Your task to perform on an android device: turn pop-ups on in chrome Image 0: 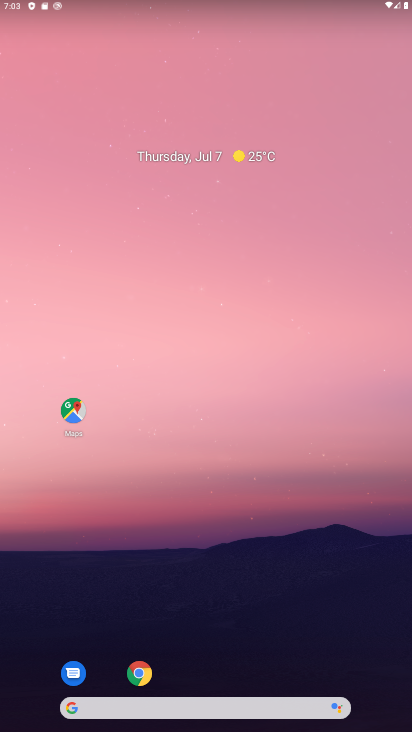
Step 0: click (143, 664)
Your task to perform on an android device: turn pop-ups on in chrome Image 1: 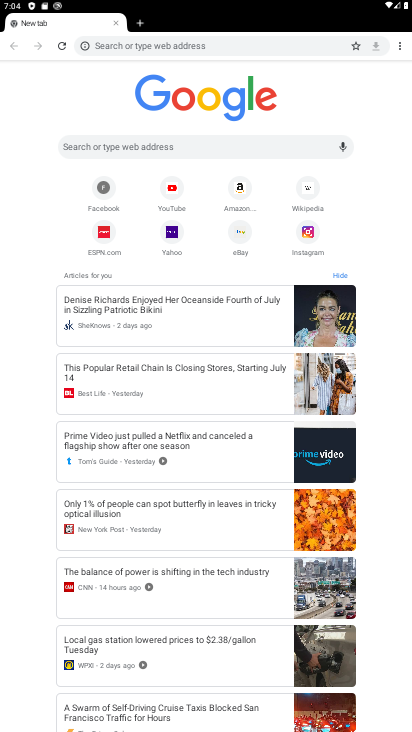
Step 1: click (400, 46)
Your task to perform on an android device: turn pop-ups on in chrome Image 2: 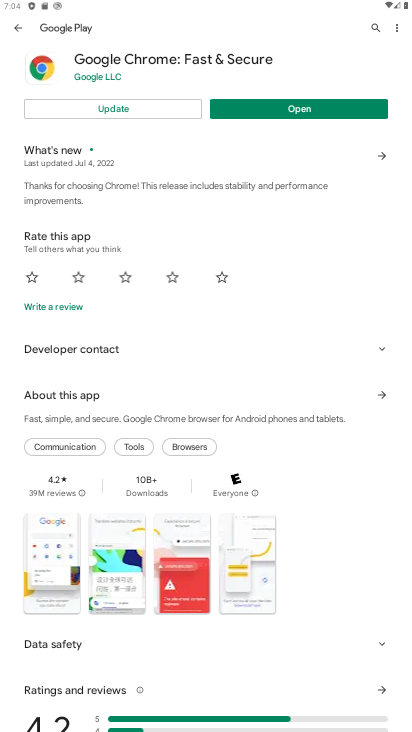
Step 2: press back button
Your task to perform on an android device: turn pop-ups on in chrome Image 3: 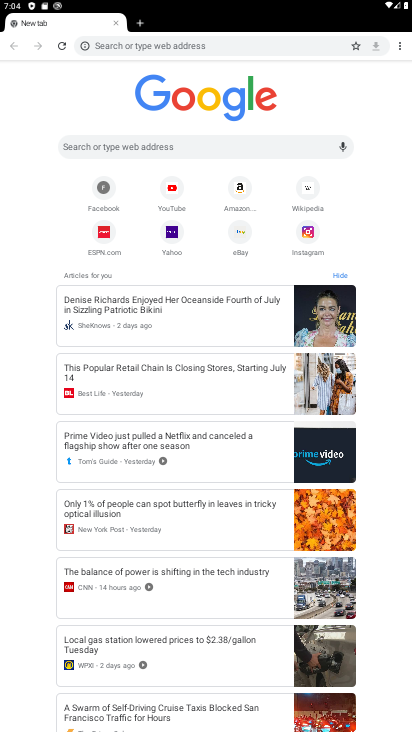
Step 3: click (396, 56)
Your task to perform on an android device: turn pop-ups on in chrome Image 4: 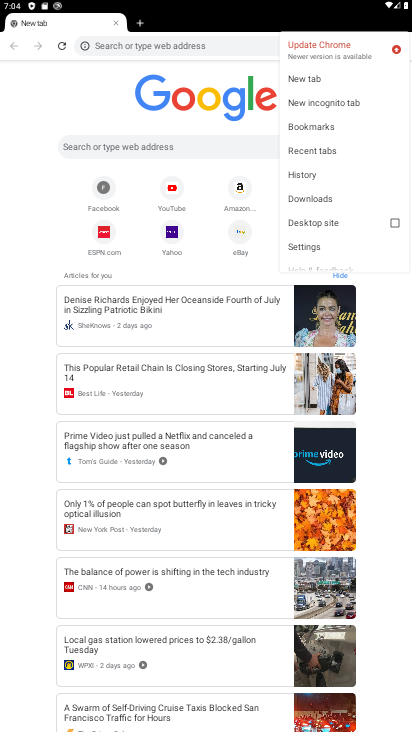
Step 4: click (315, 250)
Your task to perform on an android device: turn pop-ups on in chrome Image 5: 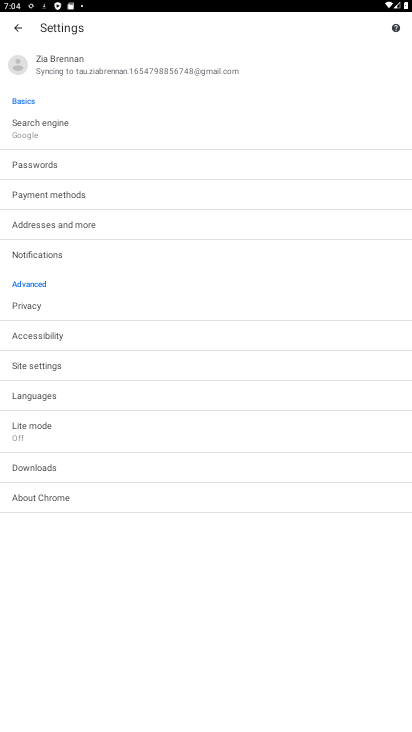
Step 5: click (94, 363)
Your task to perform on an android device: turn pop-ups on in chrome Image 6: 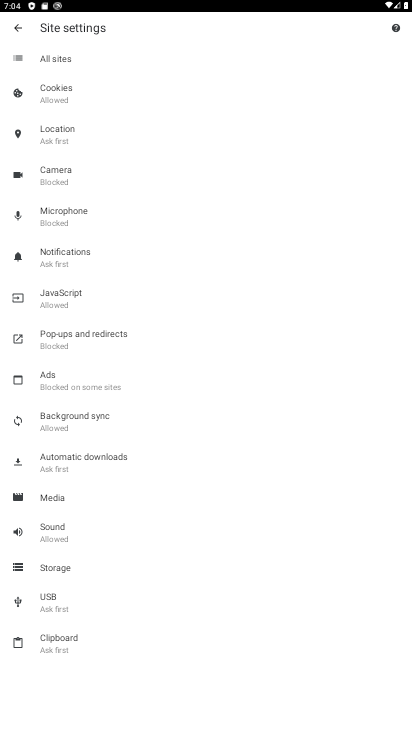
Step 6: click (105, 337)
Your task to perform on an android device: turn pop-ups on in chrome Image 7: 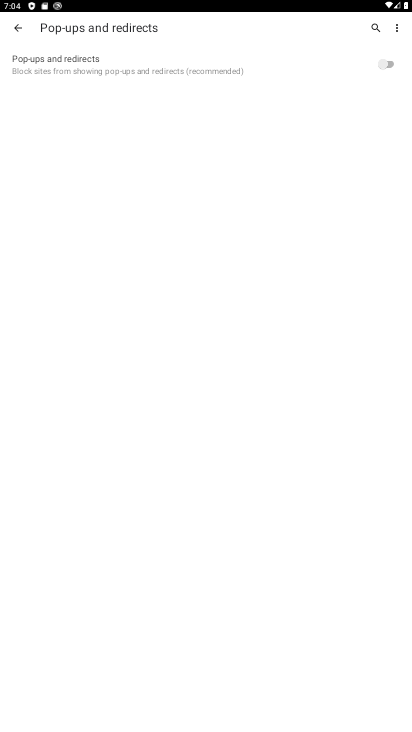
Step 7: click (385, 45)
Your task to perform on an android device: turn pop-ups on in chrome Image 8: 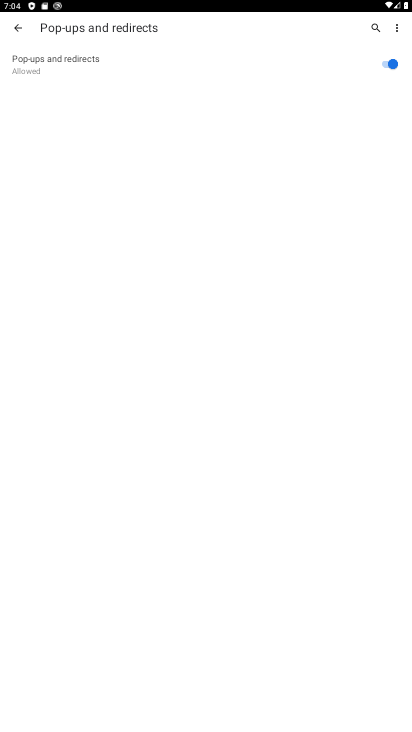
Step 8: task complete